Your task to perform on an android device: toggle improve location accuracy Image 0: 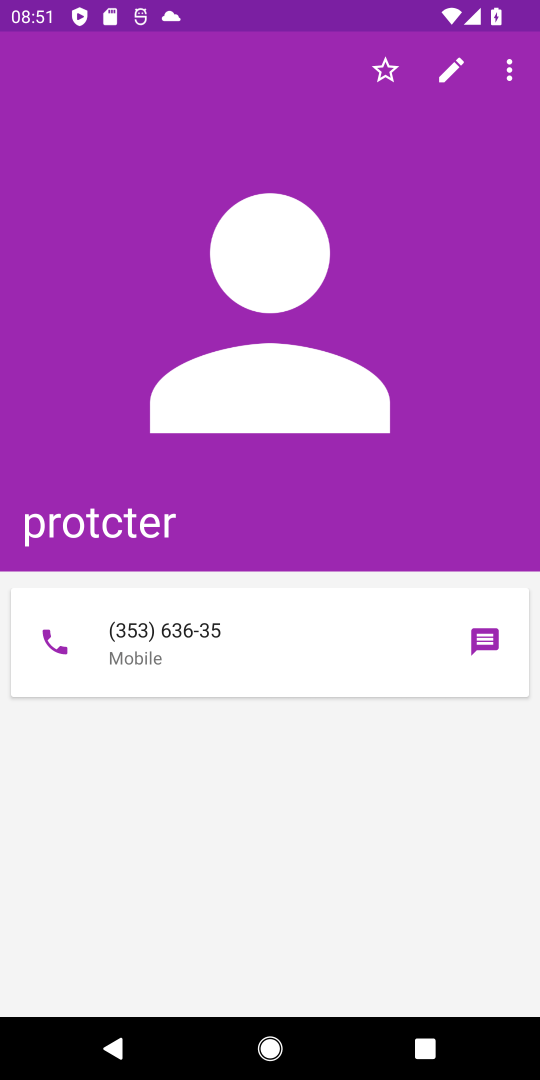
Step 0: press home button
Your task to perform on an android device: toggle improve location accuracy Image 1: 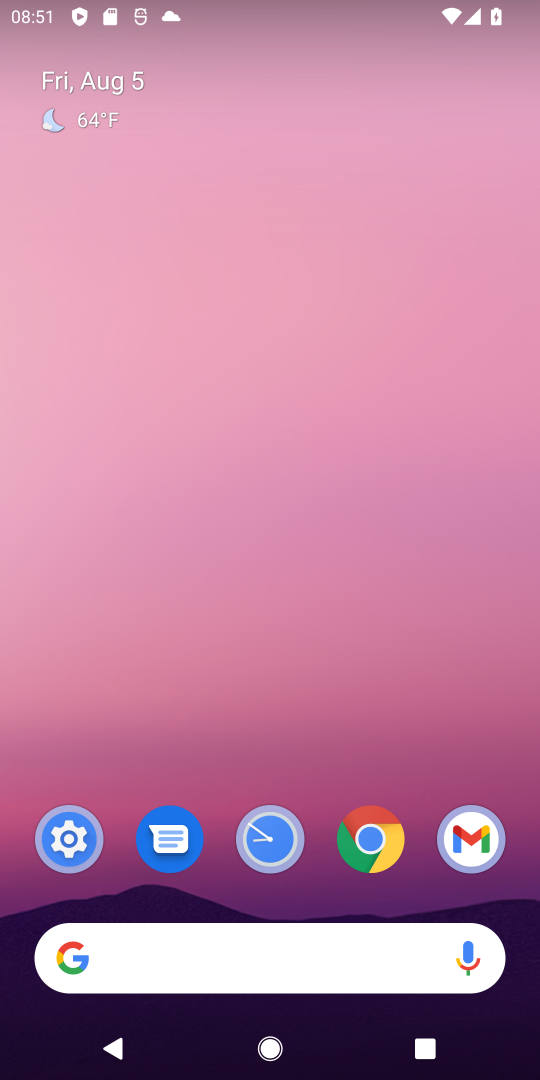
Step 1: drag from (312, 732) to (316, 207)
Your task to perform on an android device: toggle improve location accuracy Image 2: 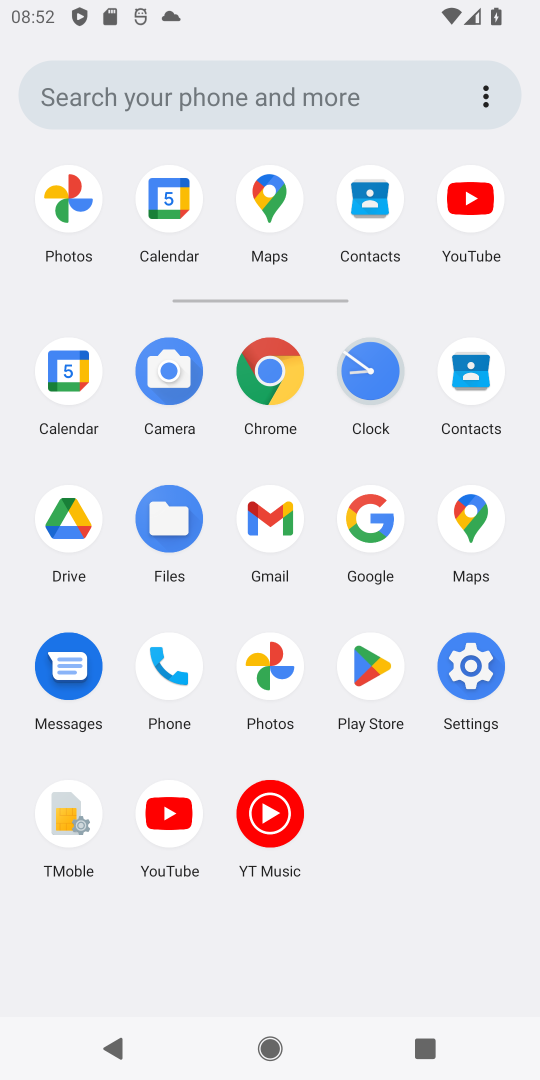
Step 2: click (481, 657)
Your task to perform on an android device: toggle improve location accuracy Image 3: 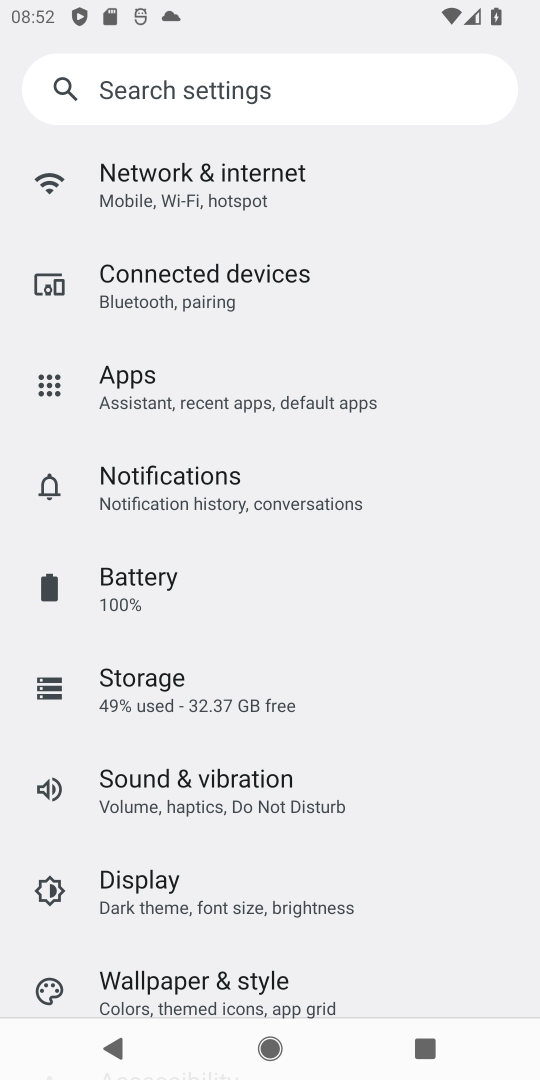
Step 3: drag from (186, 920) to (186, 477)
Your task to perform on an android device: toggle improve location accuracy Image 4: 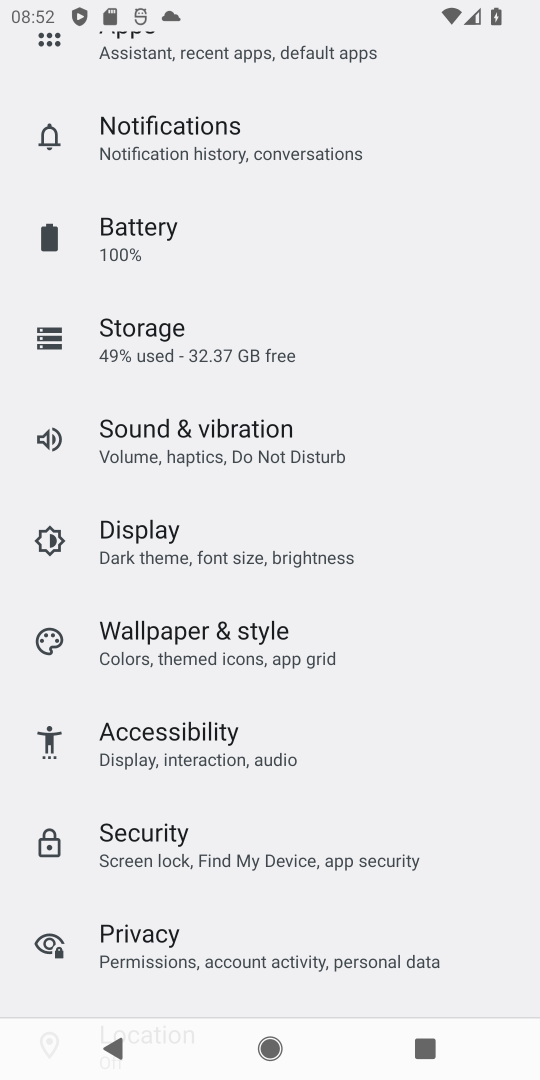
Step 4: drag from (184, 867) to (206, 429)
Your task to perform on an android device: toggle improve location accuracy Image 5: 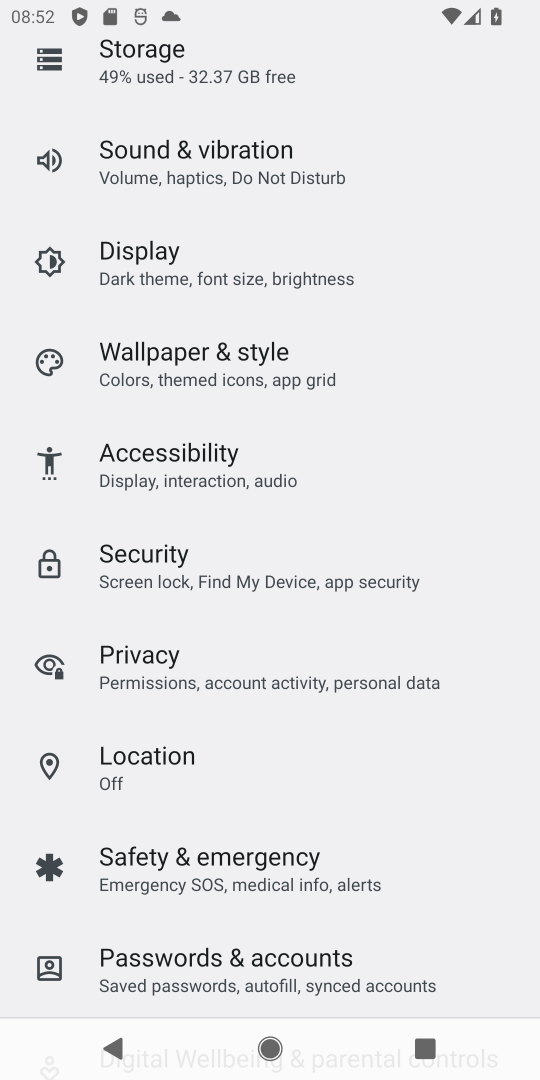
Step 5: click (126, 753)
Your task to perform on an android device: toggle improve location accuracy Image 6: 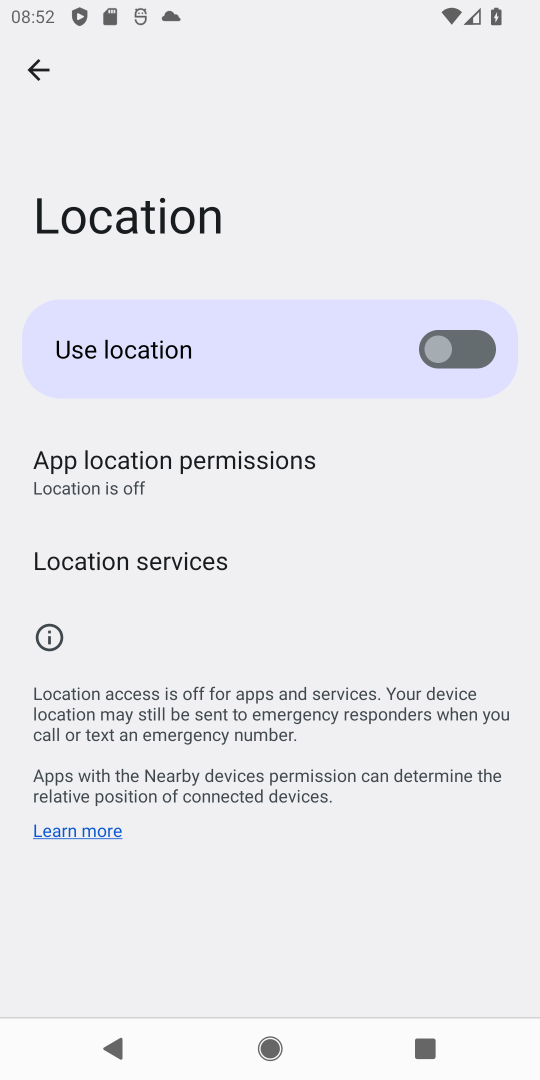
Step 6: click (111, 551)
Your task to perform on an android device: toggle improve location accuracy Image 7: 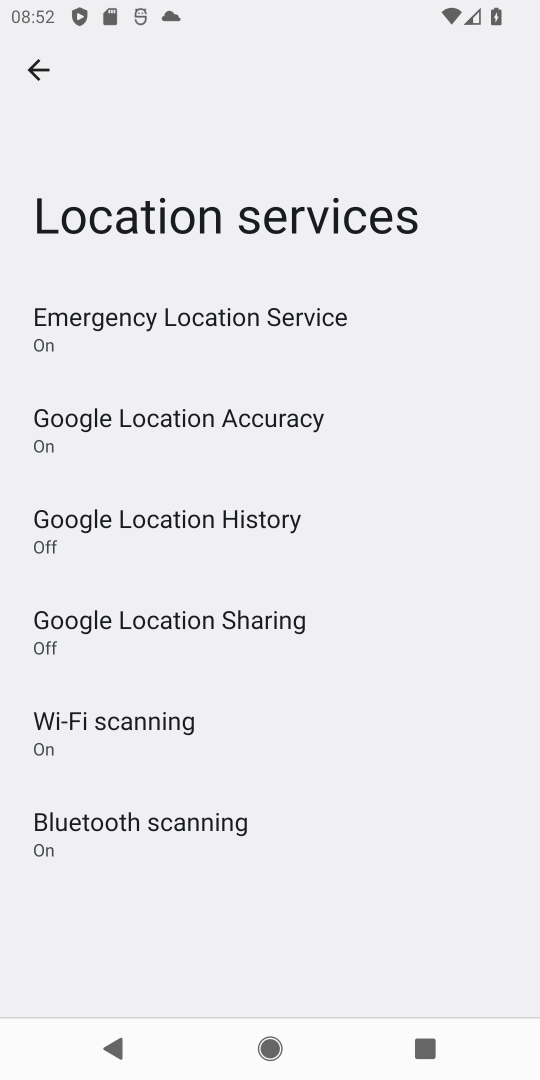
Step 7: click (198, 420)
Your task to perform on an android device: toggle improve location accuracy Image 8: 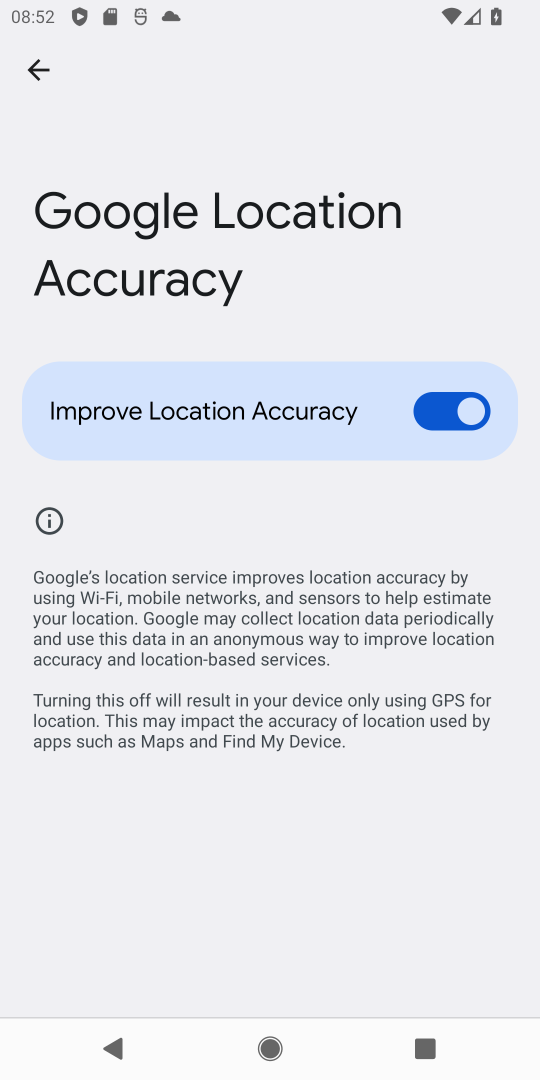
Step 8: click (451, 408)
Your task to perform on an android device: toggle improve location accuracy Image 9: 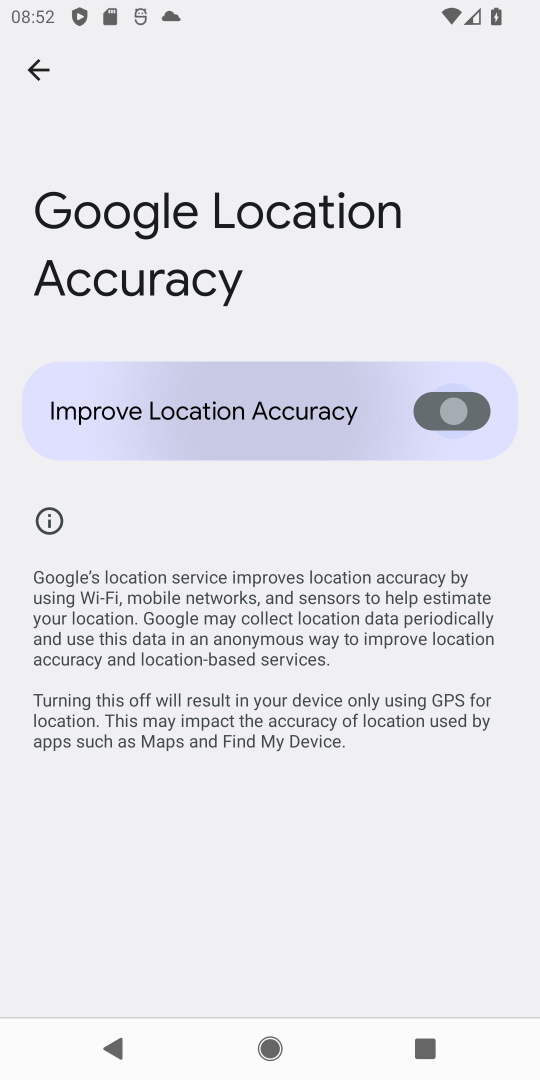
Step 9: task complete